Your task to perform on an android device: Go to accessibility settings Image 0: 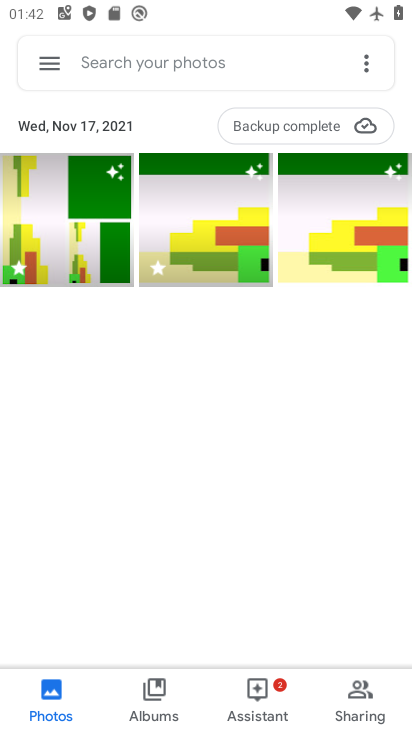
Step 0: press home button
Your task to perform on an android device: Go to accessibility settings Image 1: 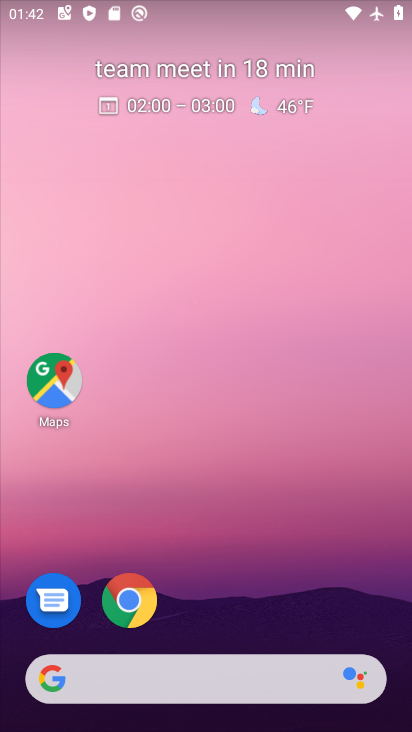
Step 1: drag from (209, 641) to (134, 105)
Your task to perform on an android device: Go to accessibility settings Image 2: 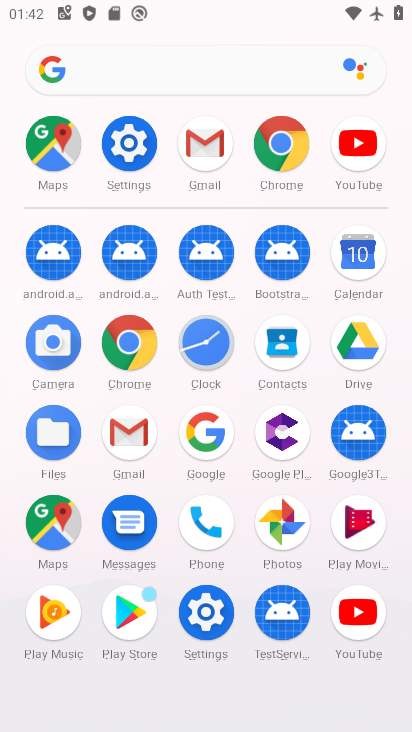
Step 2: click (196, 613)
Your task to perform on an android device: Go to accessibility settings Image 3: 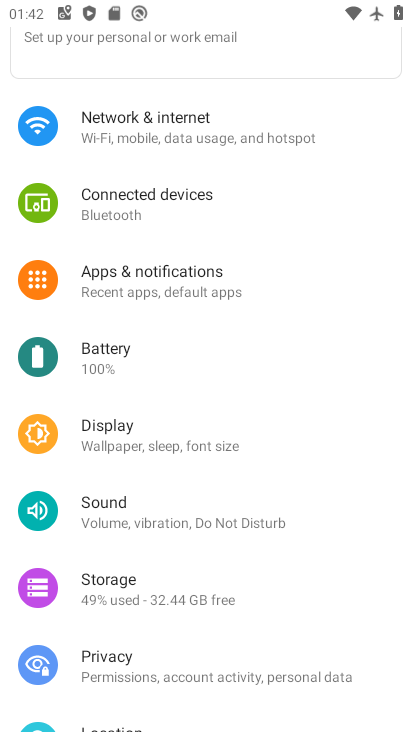
Step 3: drag from (257, 602) to (238, 471)
Your task to perform on an android device: Go to accessibility settings Image 4: 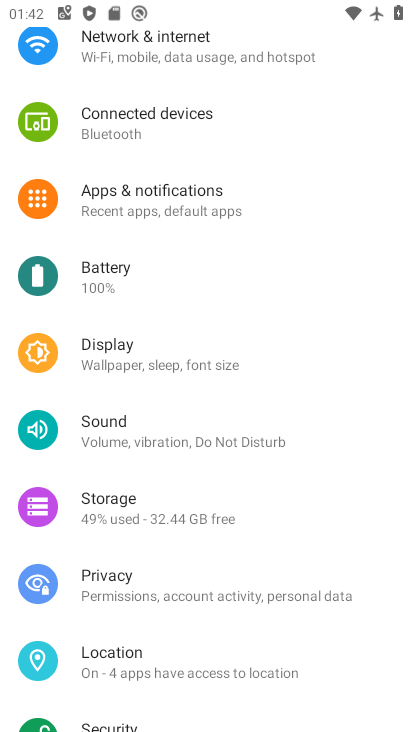
Step 4: drag from (155, 567) to (139, 213)
Your task to perform on an android device: Go to accessibility settings Image 5: 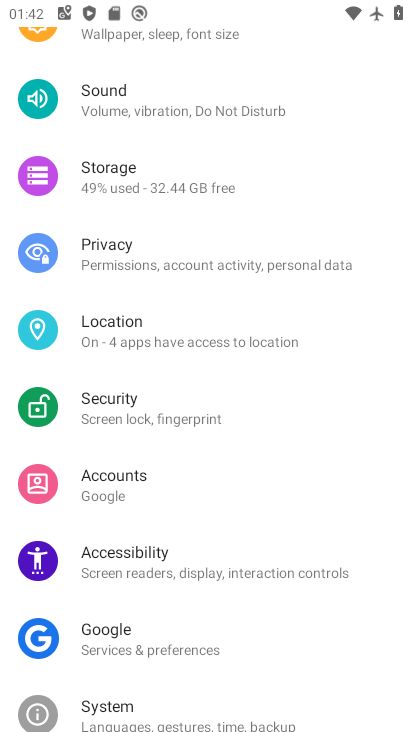
Step 5: click (141, 562)
Your task to perform on an android device: Go to accessibility settings Image 6: 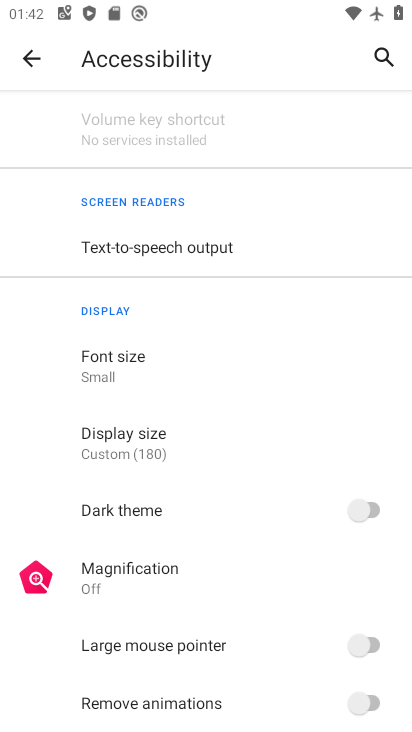
Step 6: task complete